Your task to perform on an android device: open app "Google Calendar" (install if not already installed) Image 0: 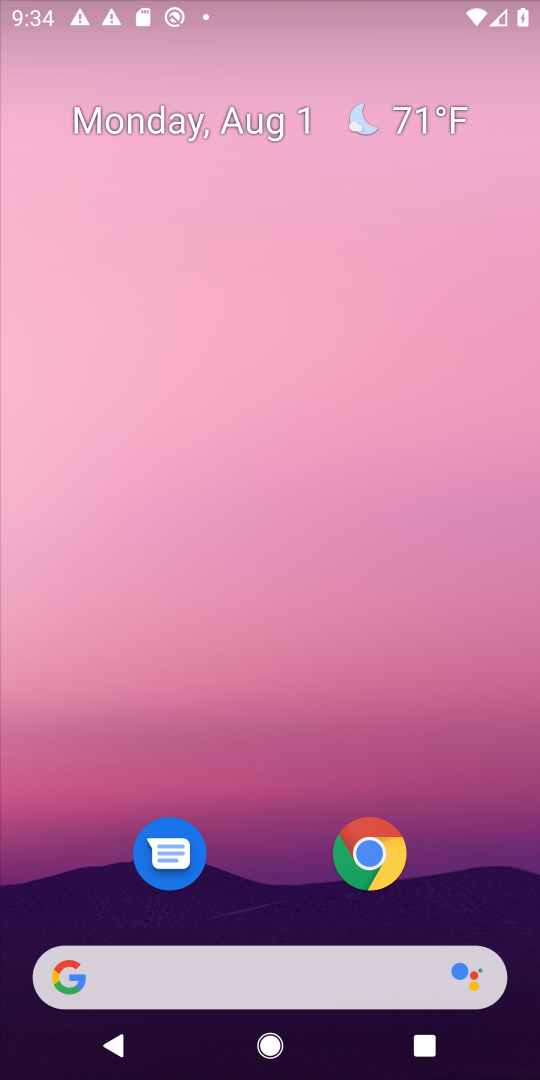
Step 0: click (394, 362)
Your task to perform on an android device: open app "Google Calendar" (install if not already installed) Image 1: 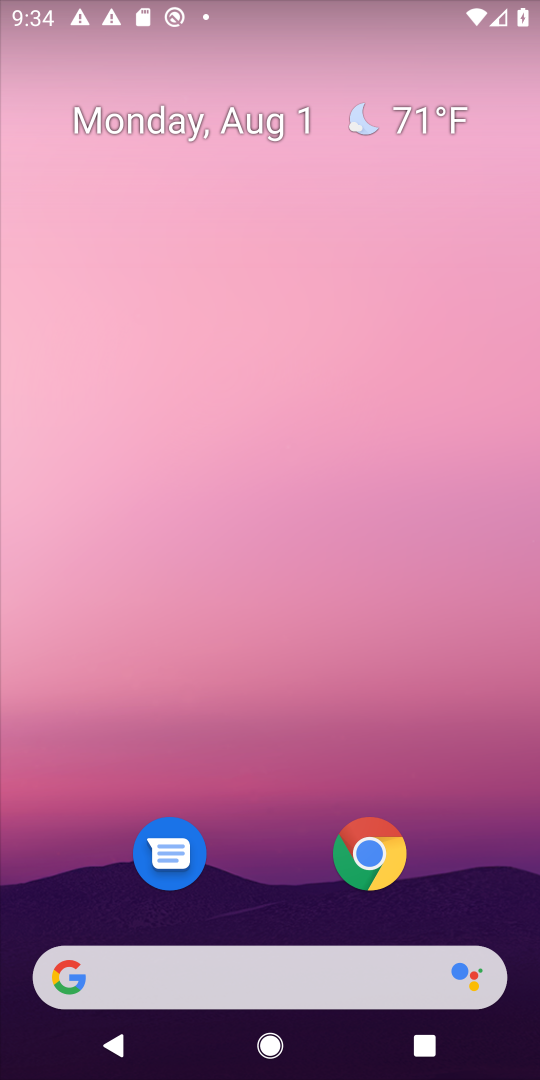
Step 1: drag from (236, 958) to (437, 118)
Your task to perform on an android device: open app "Google Calendar" (install if not already installed) Image 2: 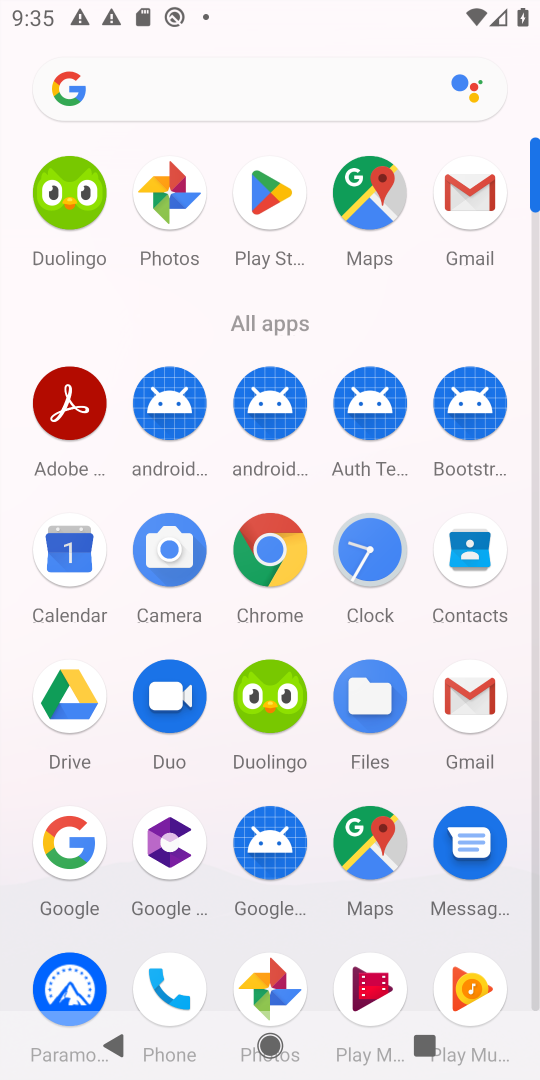
Step 2: click (276, 172)
Your task to perform on an android device: open app "Google Calendar" (install if not already installed) Image 3: 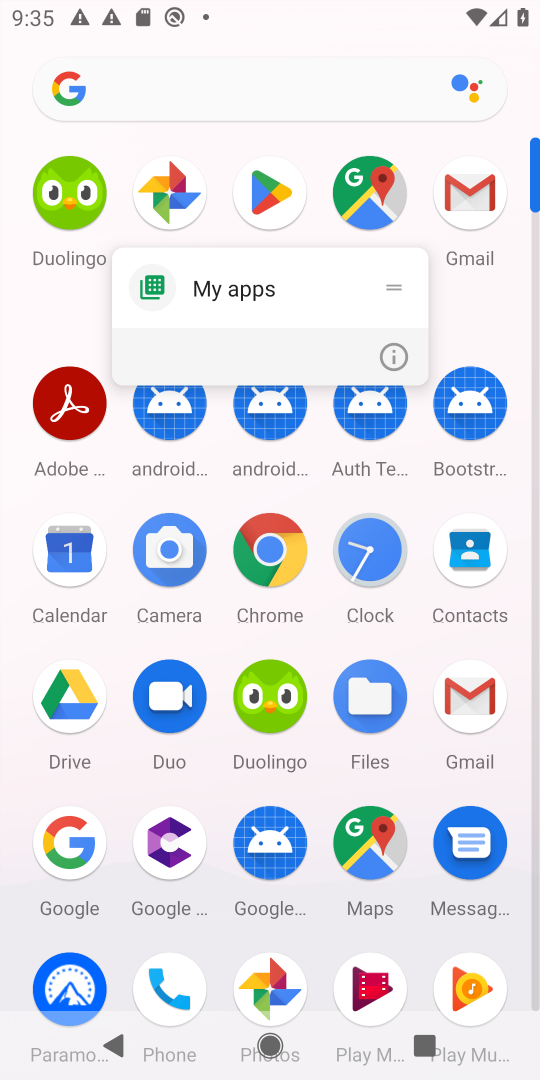
Step 3: click (395, 363)
Your task to perform on an android device: open app "Google Calendar" (install if not already installed) Image 4: 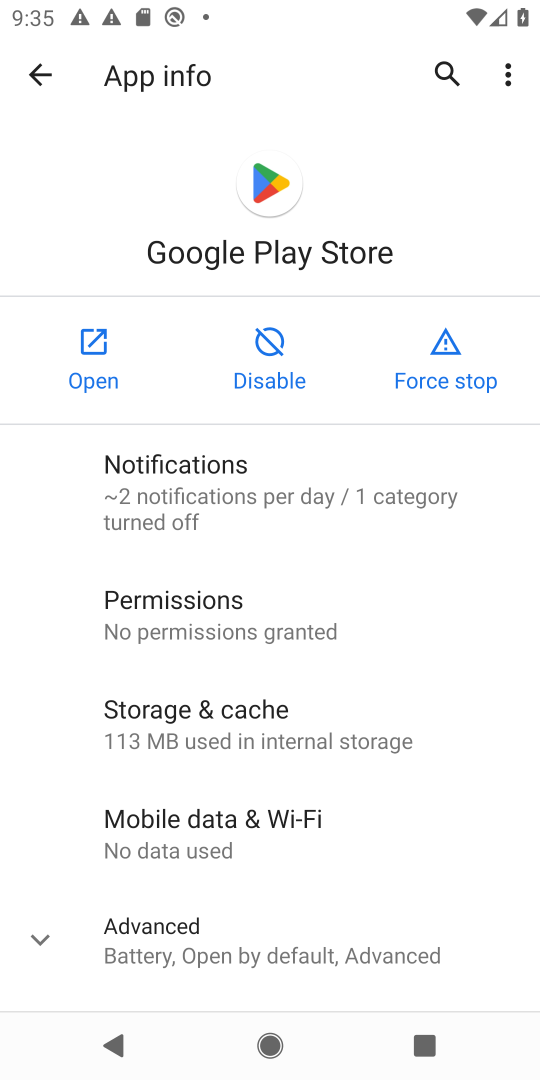
Step 4: click (116, 378)
Your task to perform on an android device: open app "Google Calendar" (install if not already installed) Image 5: 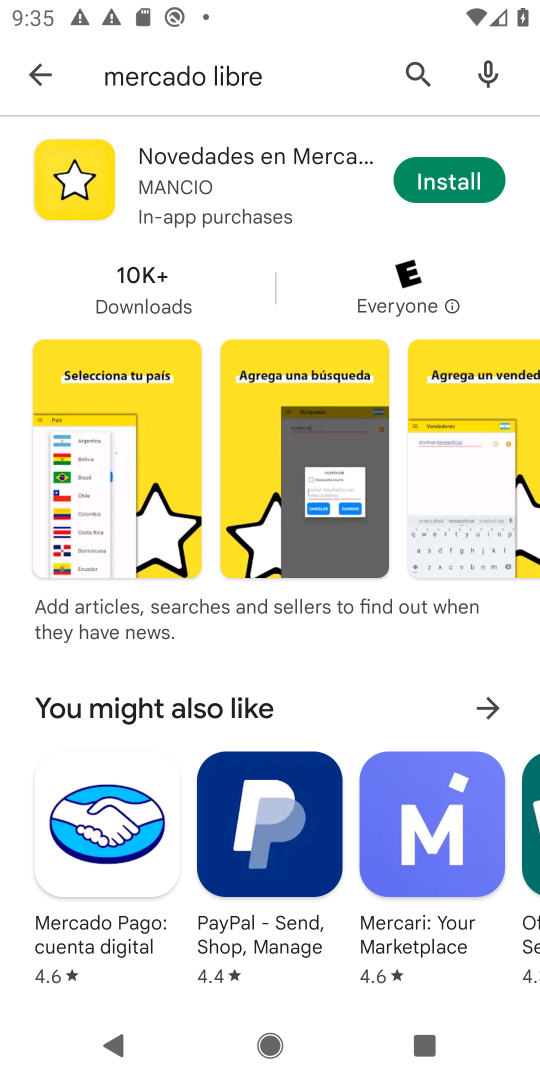
Step 5: click (413, 80)
Your task to perform on an android device: open app "Google Calendar" (install if not already installed) Image 6: 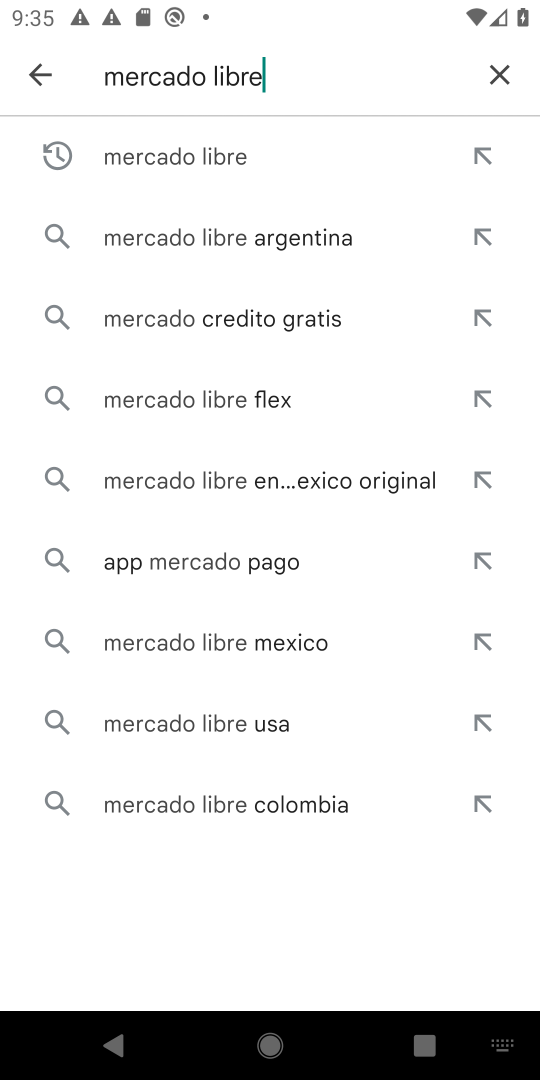
Step 6: click (514, 71)
Your task to perform on an android device: open app "Google Calendar" (install if not already installed) Image 7: 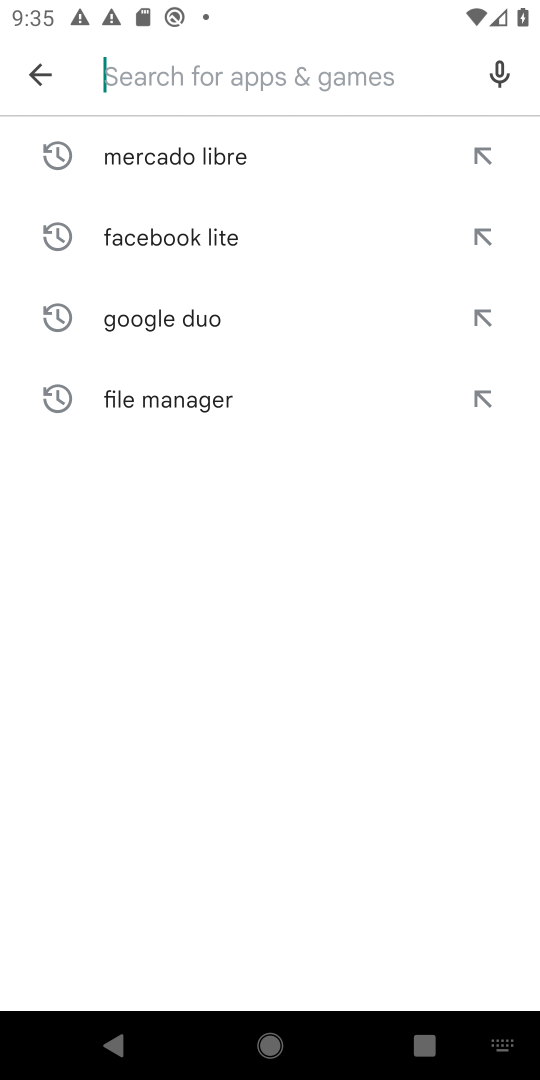
Step 7: click (228, 100)
Your task to perform on an android device: open app "Google Calendar" (install if not already installed) Image 8: 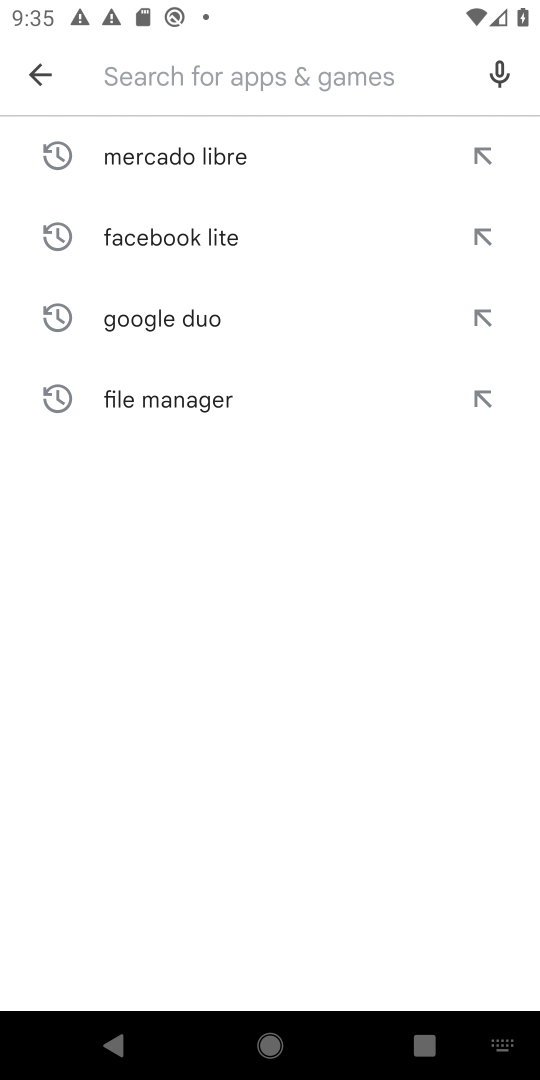
Step 8: type "Google Calendar"
Your task to perform on an android device: open app "Google Calendar" (install if not already installed) Image 9: 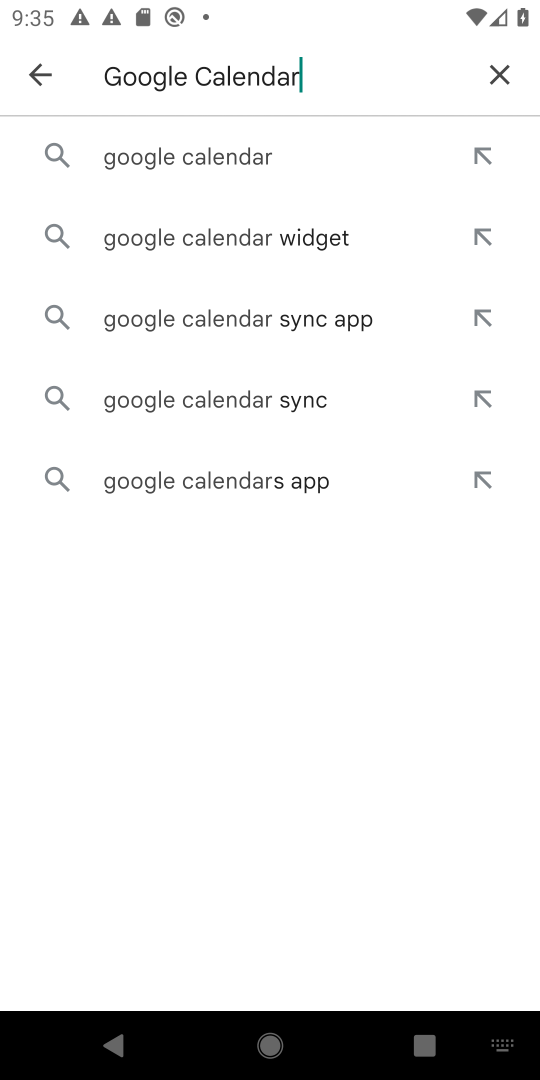
Step 9: click (246, 149)
Your task to perform on an android device: open app "Google Calendar" (install if not already installed) Image 10: 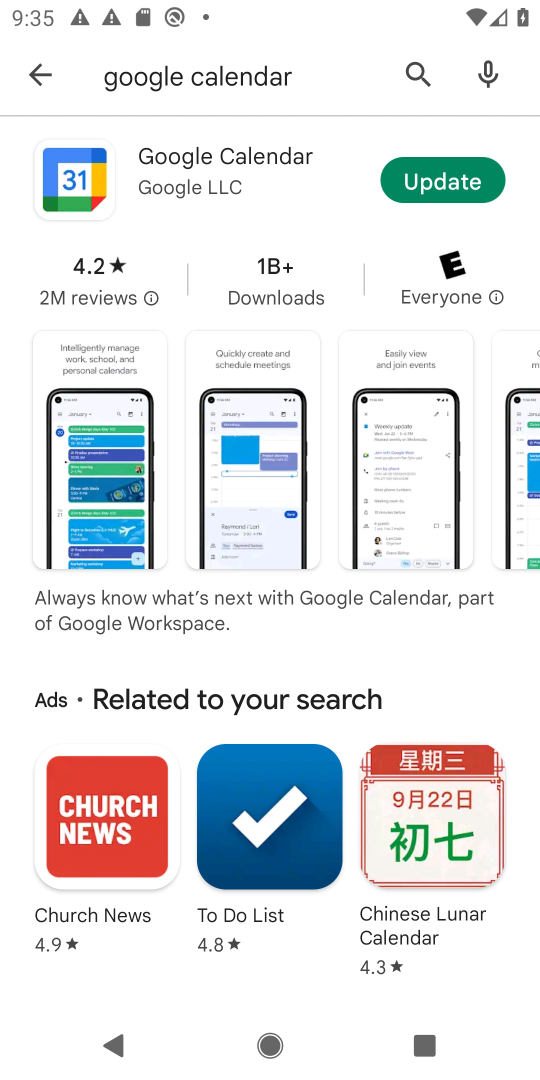
Step 10: click (196, 167)
Your task to perform on an android device: open app "Google Calendar" (install if not already installed) Image 11: 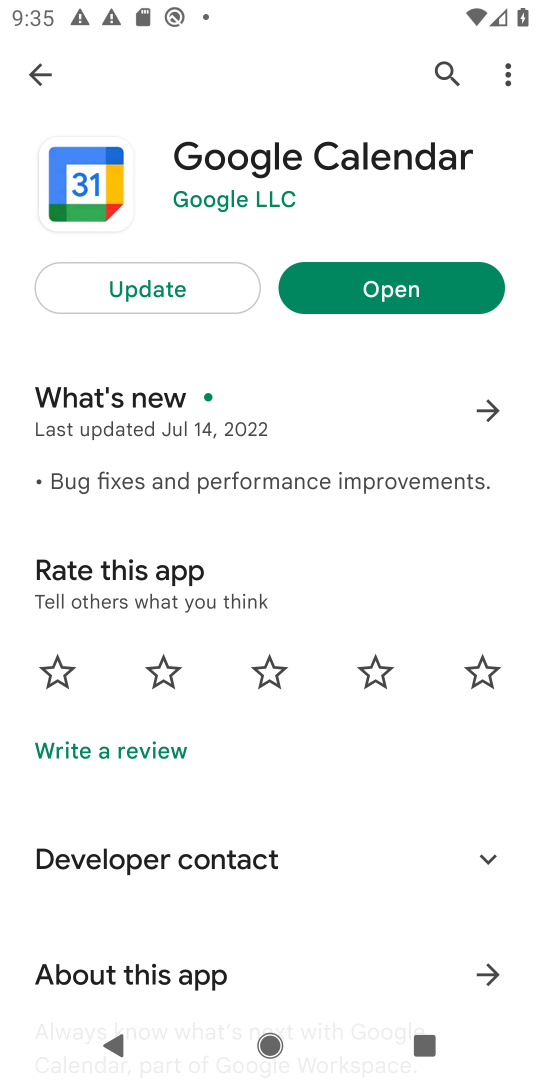
Step 11: click (403, 295)
Your task to perform on an android device: open app "Google Calendar" (install if not already installed) Image 12: 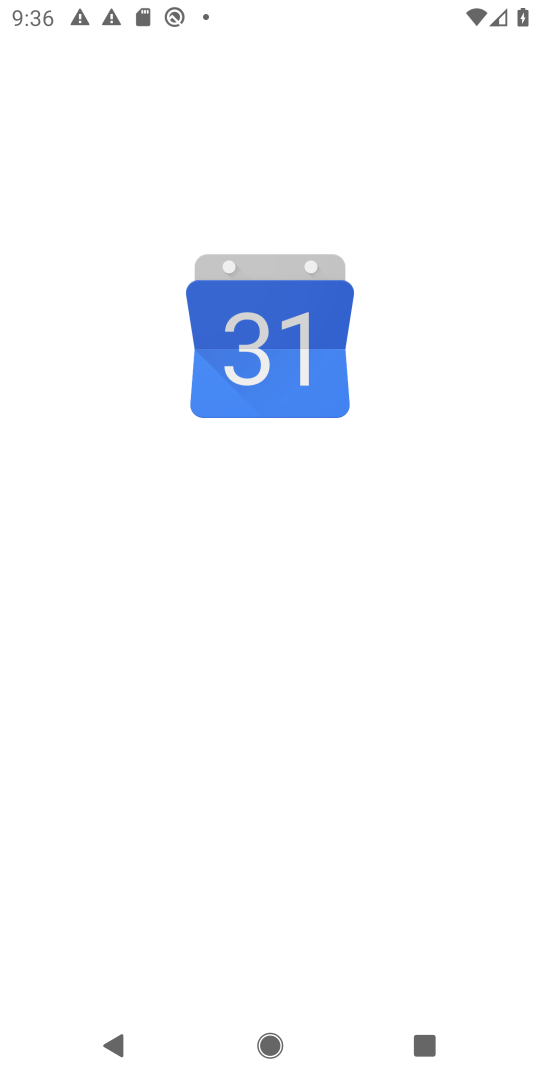
Step 12: task complete